Your task to perform on an android device: toggle airplane mode Image 0: 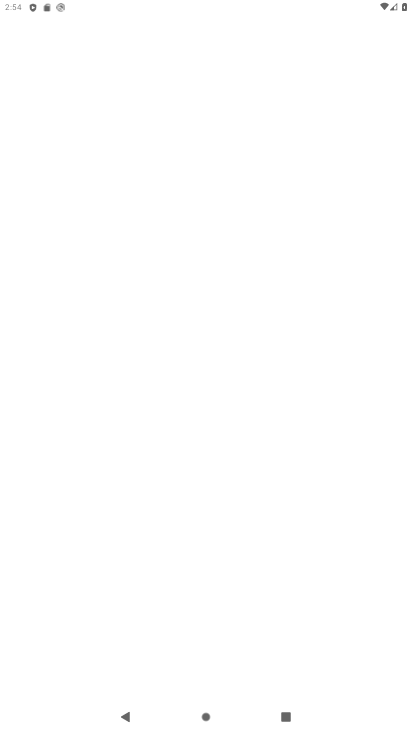
Step 0: press home button
Your task to perform on an android device: toggle airplane mode Image 1: 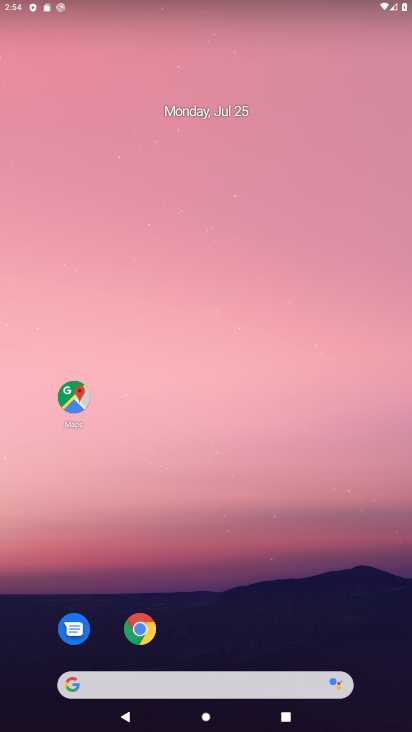
Step 1: drag from (243, 651) to (250, 49)
Your task to perform on an android device: toggle airplane mode Image 2: 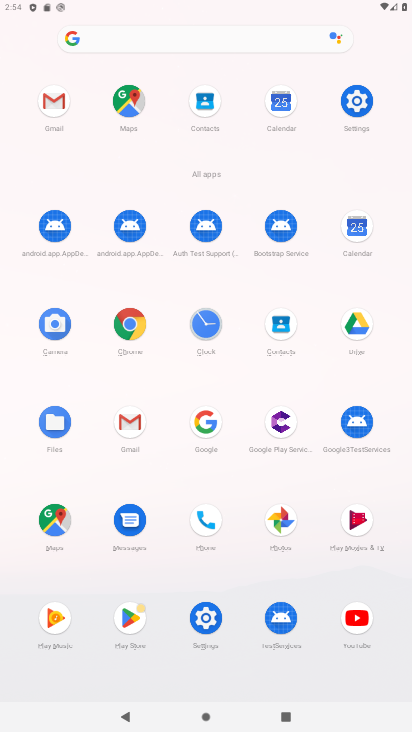
Step 2: click (347, 103)
Your task to perform on an android device: toggle airplane mode Image 3: 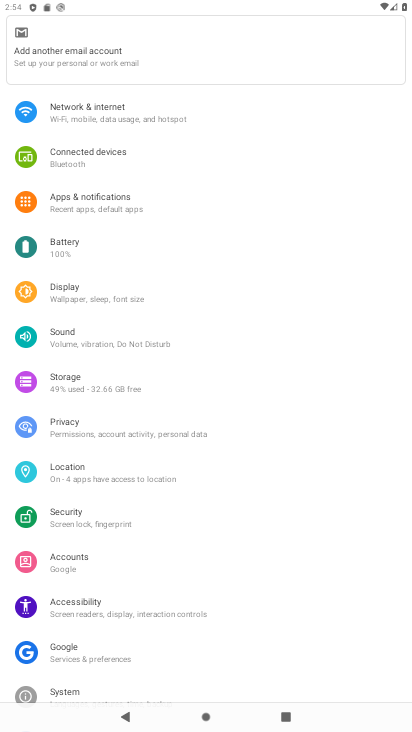
Step 3: click (75, 116)
Your task to perform on an android device: toggle airplane mode Image 4: 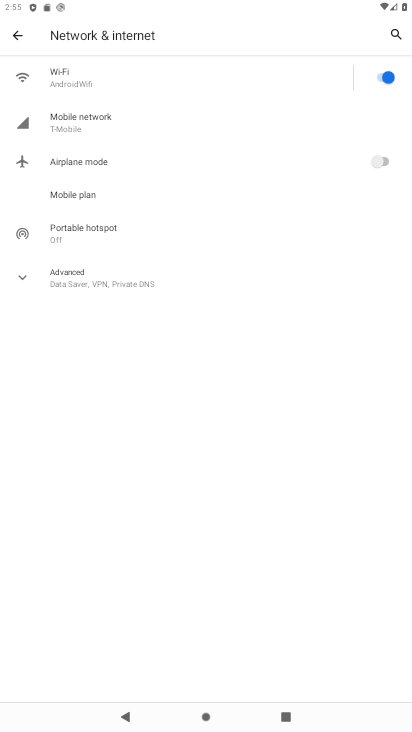
Step 4: click (357, 151)
Your task to perform on an android device: toggle airplane mode Image 5: 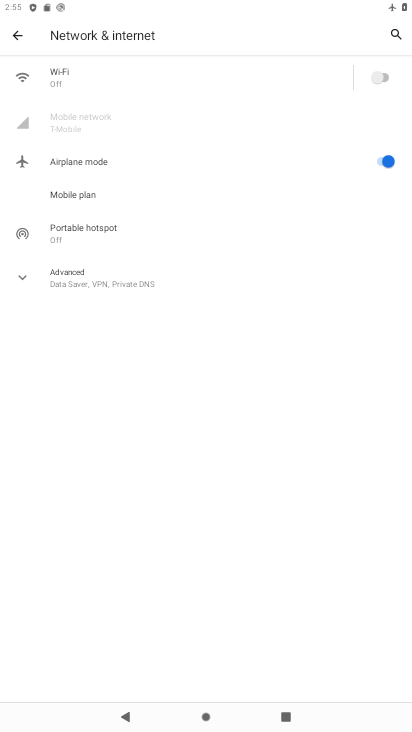
Step 5: task complete